Your task to perform on an android device: Clear the shopping cart on bestbuy.com. Search for "jbl flip 4" on bestbuy.com, select the first entry, and add it to the cart. Image 0: 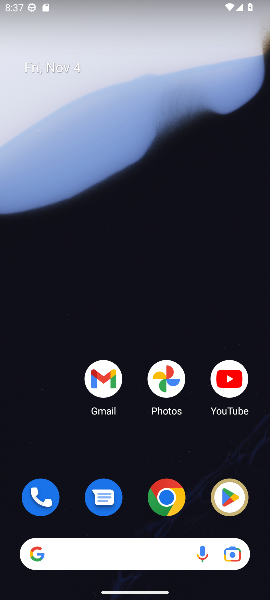
Step 0: click (172, 503)
Your task to perform on an android device: Clear the shopping cart on bestbuy.com. Search for "jbl flip 4" on bestbuy.com, select the first entry, and add it to the cart. Image 1: 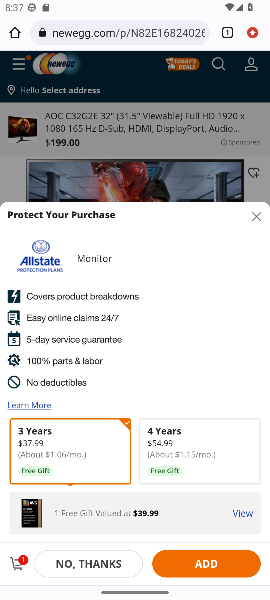
Step 1: click (118, 30)
Your task to perform on an android device: Clear the shopping cart on bestbuy.com. Search for "jbl flip 4" on bestbuy.com, select the first entry, and add it to the cart. Image 2: 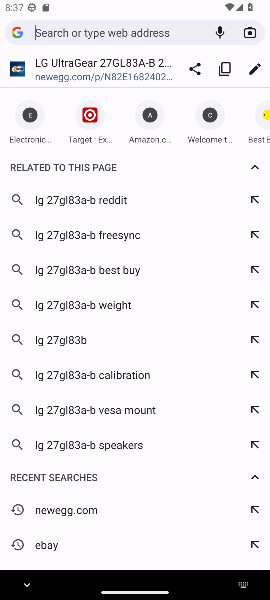
Step 2: type "bestbuy.com"
Your task to perform on an android device: Clear the shopping cart on bestbuy.com. Search for "jbl flip 4" on bestbuy.com, select the first entry, and add it to the cart. Image 3: 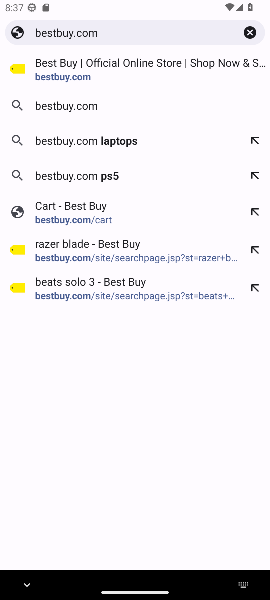
Step 3: click (67, 78)
Your task to perform on an android device: Clear the shopping cart on bestbuy.com. Search for "jbl flip 4" on bestbuy.com, select the first entry, and add it to the cart. Image 4: 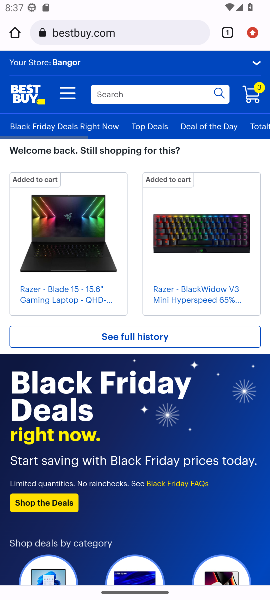
Step 4: click (254, 99)
Your task to perform on an android device: Clear the shopping cart on bestbuy.com. Search for "jbl flip 4" on bestbuy.com, select the first entry, and add it to the cart. Image 5: 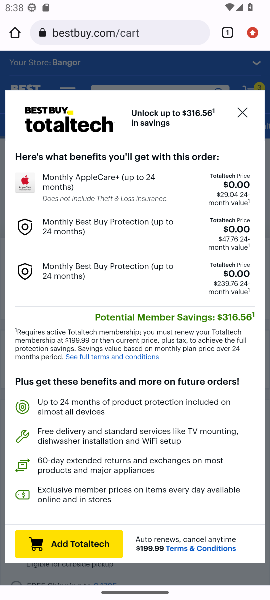
Step 5: click (240, 116)
Your task to perform on an android device: Clear the shopping cart on bestbuy.com. Search for "jbl flip 4" on bestbuy.com, select the first entry, and add it to the cart. Image 6: 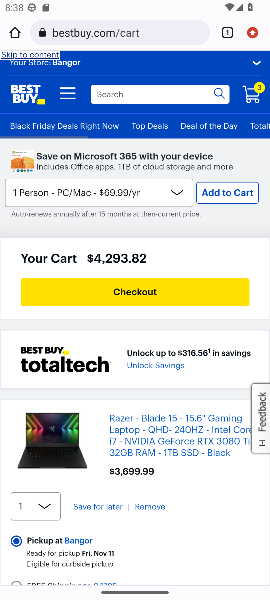
Step 6: click (157, 507)
Your task to perform on an android device: Clear the shopping cart on bestbuy.com. Search for "jbl flip 4" on bestbuy.com, select the first entry, and add it to the cart. Image 7: 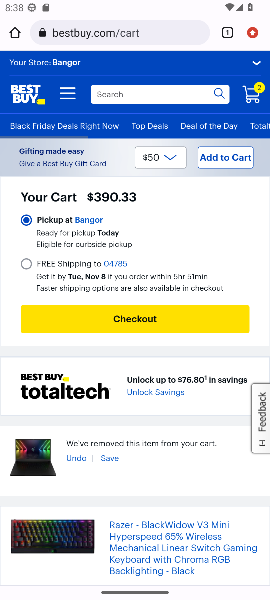
Step 7: drag from (157, 507) to (149, 314)
Your task to perform on an android device: Clear the shopping cart on bestbuy.com. Search for "jbl flip 4" on bestbuy.com, select the first entry, and add it to the cart. Image 8: 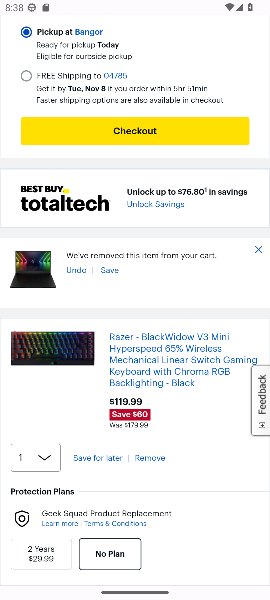
Step 8: click (156, 456)
Your task to perform on an android device: Clear the shopping cart on bestbuy.com. Search for "jbl flip 4" on bestbuy.com, select the first entry, and add it to the cart. Image 9: 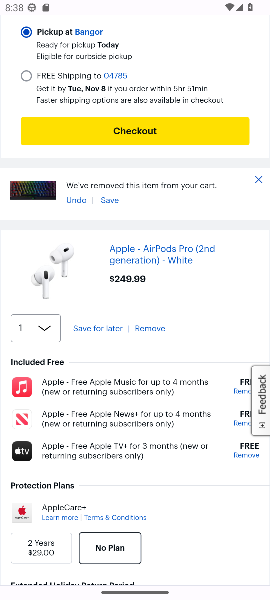
Step 9: click (158, 333)
Your task to perform on an android device: Clear the shopping cart on bestbuy.com. Search for "jbl flip 4" on bestbuy.com, select the first entry, and add it to the cart. Image 10: 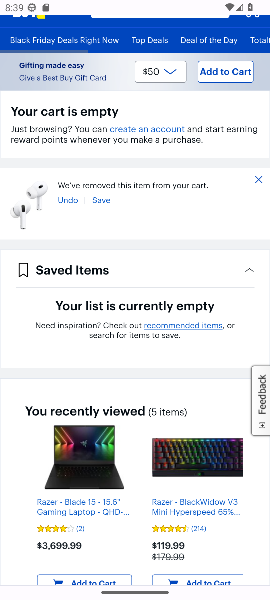
Step 10: drag from (120, 129) to (100, 433)
Your task to perform on an android device: Clear the shopping cart on bestbuy.com. Search for "jbl flip 4" on bestbuy.com, select the first entry, and add it to the cart. Image 11: 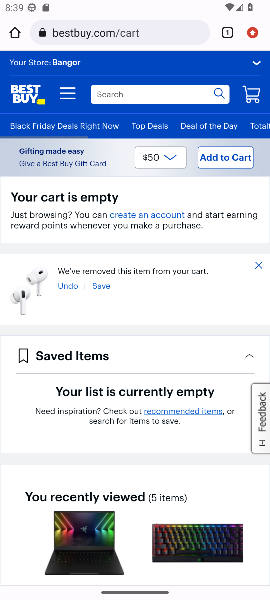
Step 11: click (214, 95)
Your task to perform on an android device: Clear the shopping cart on bestbuy.com. Search for "jbl flip 4" on bestbuy.com, select the first entry, and add it to the cart. Image 12: 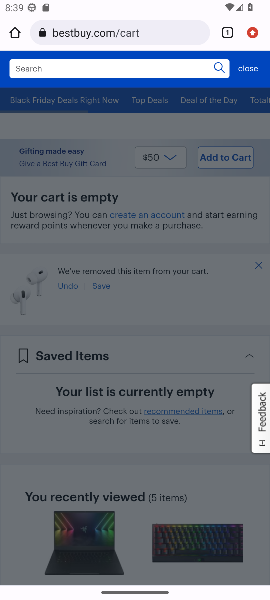
Step 12: type "jbl flip 4"
Your task to perform on an android device: Clear the shopping cart on bestbuy.com. Search for "jbl flip 4" on bestbuy.com, select the first entry, and add it to the cart. Image 13: 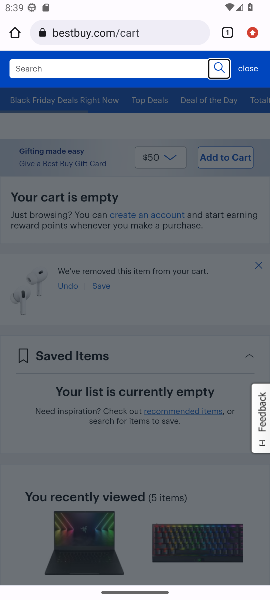
Step 13: click (43, 71)
Your task to perform on an android device: Clear the shopping cart on bestbuy.com. Search for "jbl flip 4" on bestbuy.com, select the first entry, and add it to the cart. Image 14: 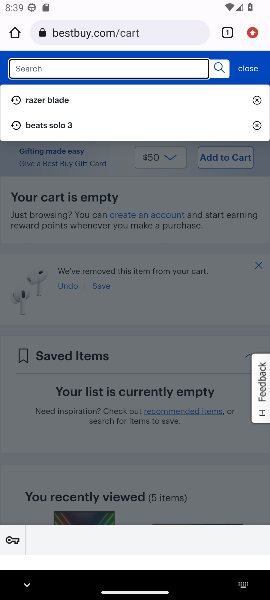
Step 14: type "jbl flip 4"
Your task to perform on an android device: Clear the shopping cart on bestbuy.com. Search for "jbl flip 4" on bestbuy.com, select the first entry, and add it to the cart. Image 15: 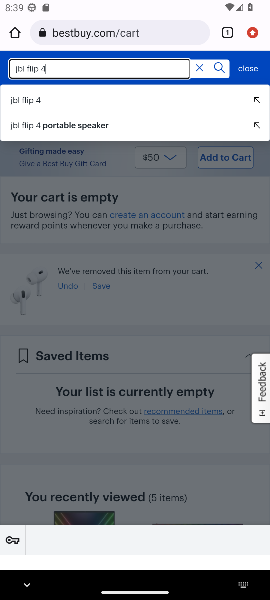
Step 15: click (30, 105)
Your task to perform on an android device: Clear the shopping cart on bestbuy.com. Search for "jbl flip 4" on bestbuy.com, select the first entry, and add it to the cart. Image 16: 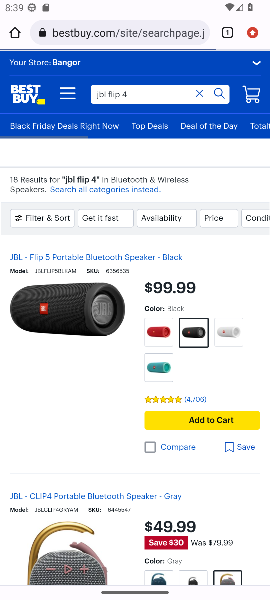
Step 16: task complete